Your task to perform on an android device: find photos in the google photos app Image 0: 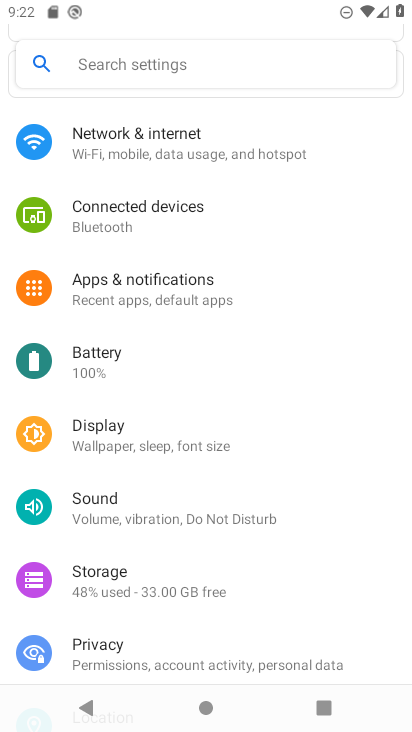
Step 0: press home button
Your task to perform on an android device: find photos in the google photos app Image 1: 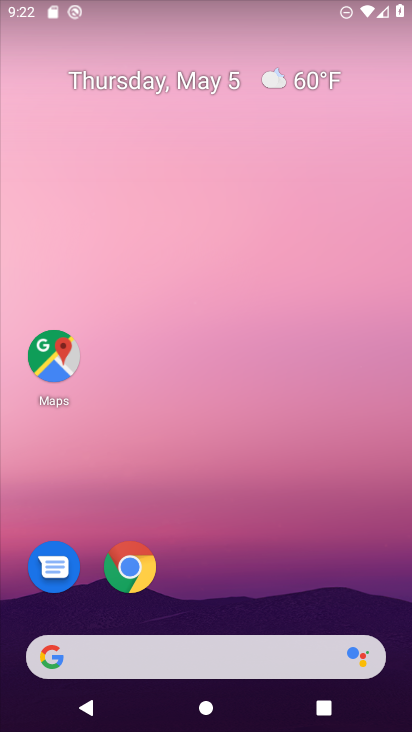
Step 1: drag from (224, 726) to (224, 212)
Your task to perform on an android device: find photos in the google photos app Image 2: 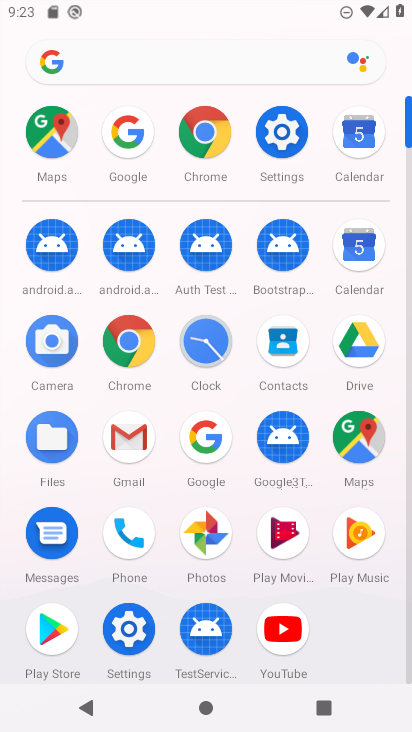
Step 2: click (206, 528)
Your task to perform on an android device: find photos in the google photos app Image 3: 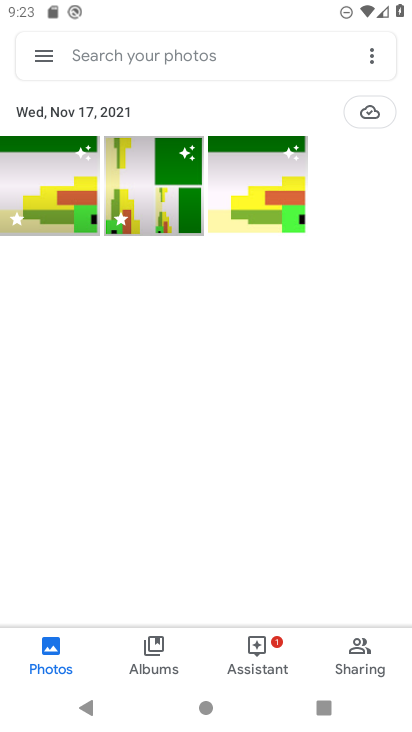
Step 3: click (65, 194)
Your task to perform on an android device: find photos in the google photos app Image 4: 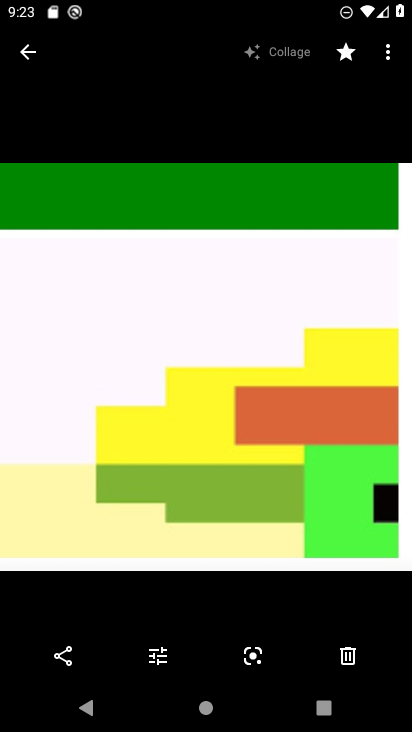
Step 4: task complete